Your task to perform on an android device: Do I have any events this weekend? Image 0: 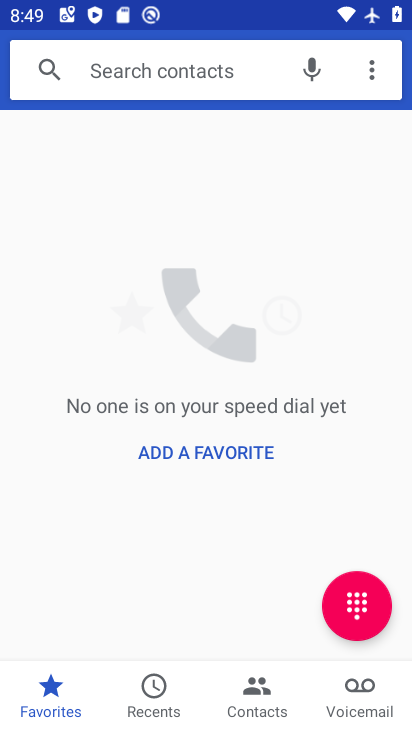
Step 0: press home button
Your task to perform on an android device: Do I have any events this weekend? Image 1: 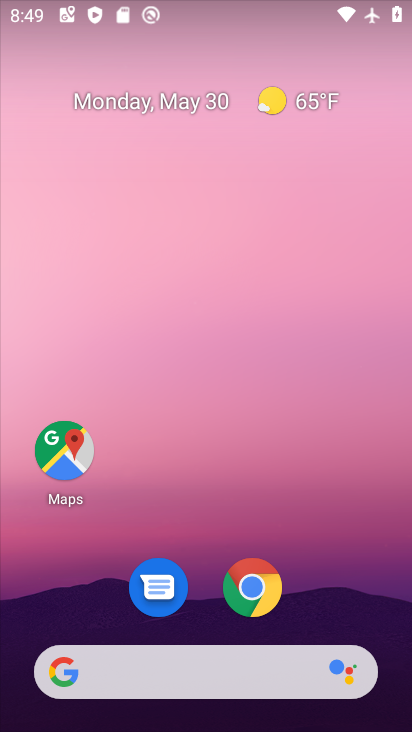
Step 1: drag from (134, 665) to (221, 126)
Your task to perform on an android device: Do I have any events this weekend? Image 2: 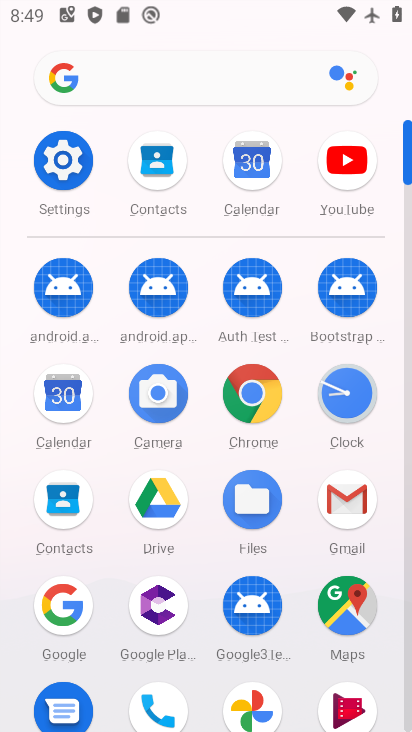
Step 2: click (252, 164)
Your task to perform on an android device: Do I have any events this weekend? Image 3: 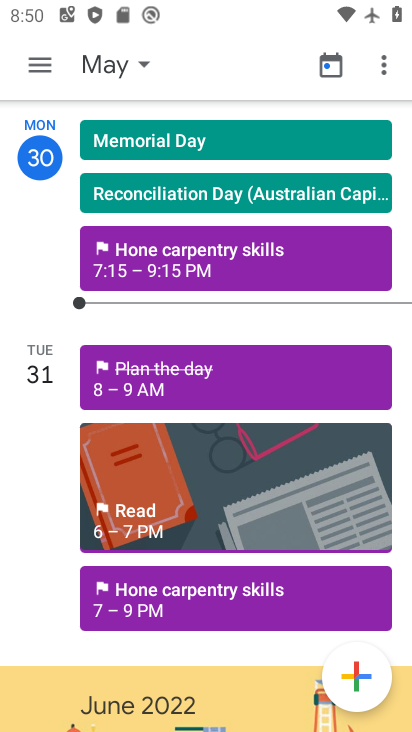
Step 3: click (120, 59)
Your task to perform on an android device: Do I have any events this weekend? Image 4: 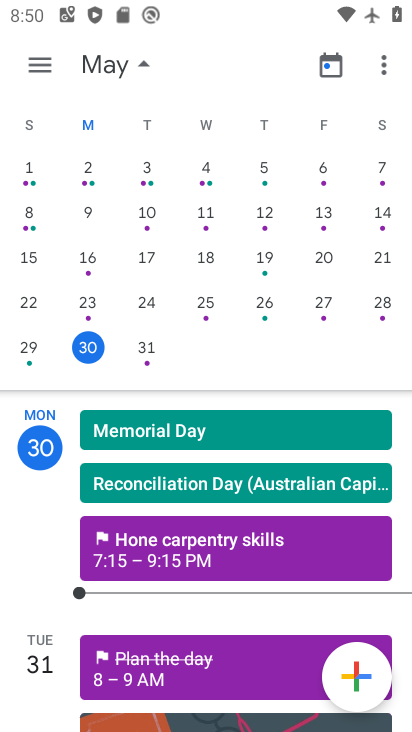
Step 4: drag from (366, 268) to (8, 316)
Your task to perform on an android device: Do I have any events this weekend? Image 5: 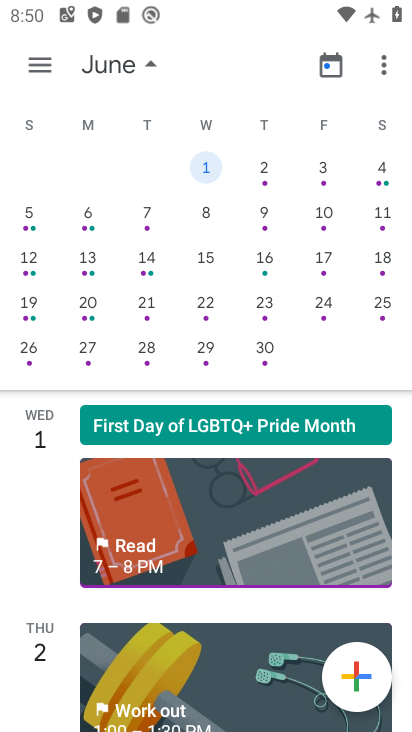
Step 5: click (376, 166)
Your task to perform on an android device: Do I have any events this weekend? Image 6: 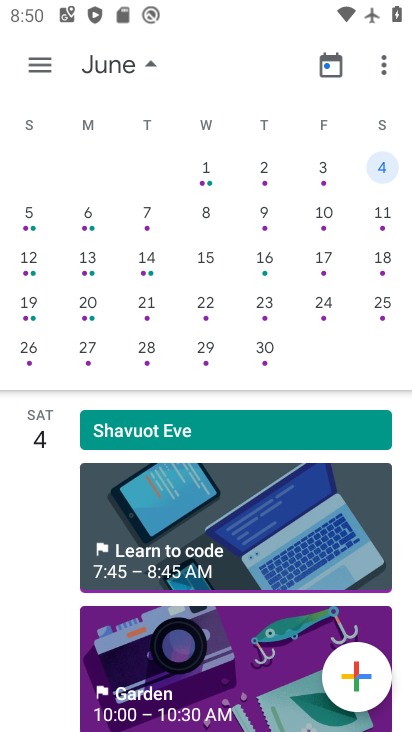
Step 6: click (44, 65)
Your task to perform on an android device: Do I have any events this weekend? Image 7: 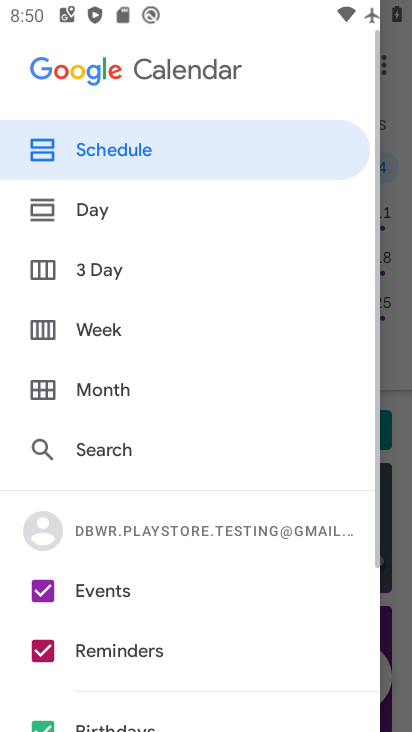
Step 7: click (102, 144)
Your task to perform on an android device: Do I have any events this weekend? Image 8: 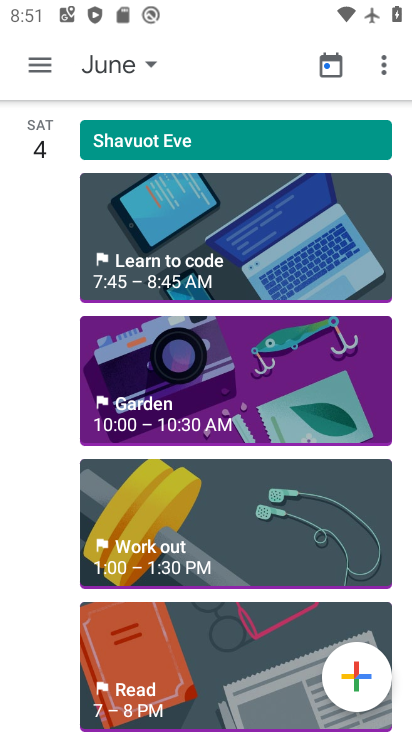
Step 8: task complete